Your task to perform on an android device: choose inbox layout in the gmail app Image 0: 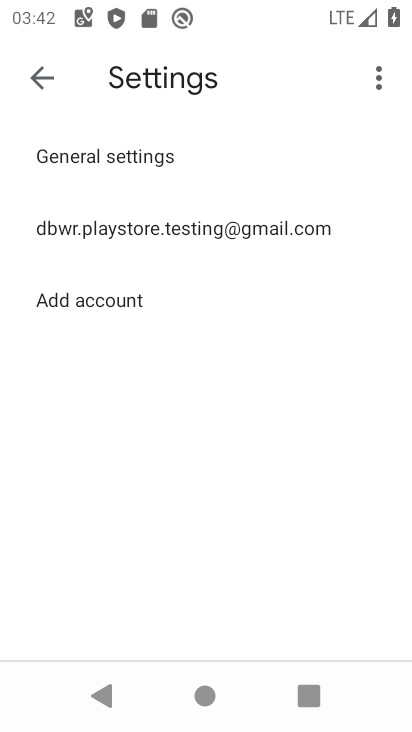
Step 0: press home button
Your task to perform on an android device: choose inbox layout in the gmail app Image 1: 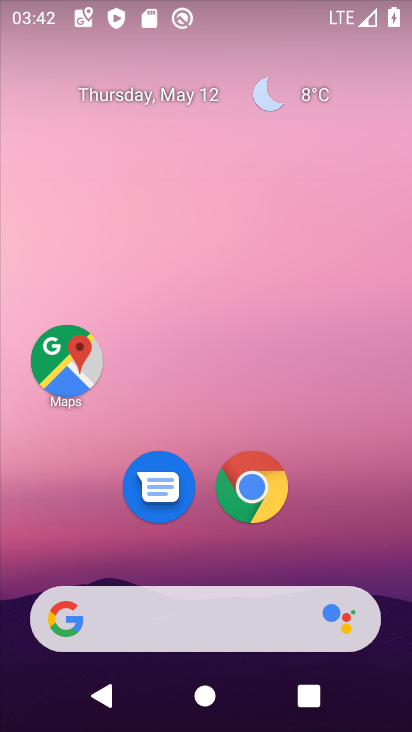
Step 1: drag from (368, 482) to (286, 57)
Your task to perform on an android device: choose inbox layout in the gmail app Image 2: 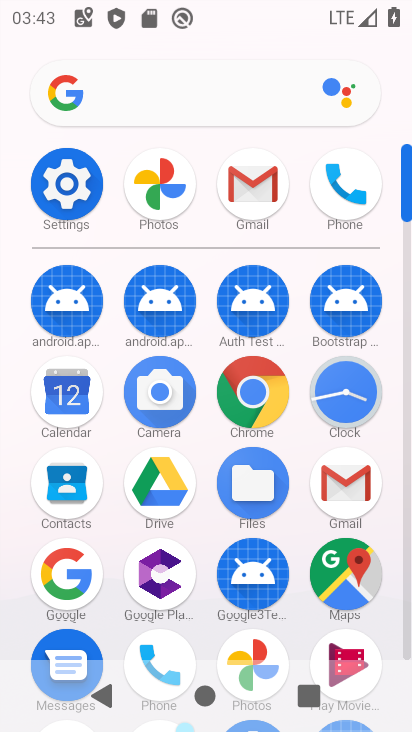
Step 2: click (345, 487)
Your task to perform on an android device: choose inbox layout in the gmail app Image 3: 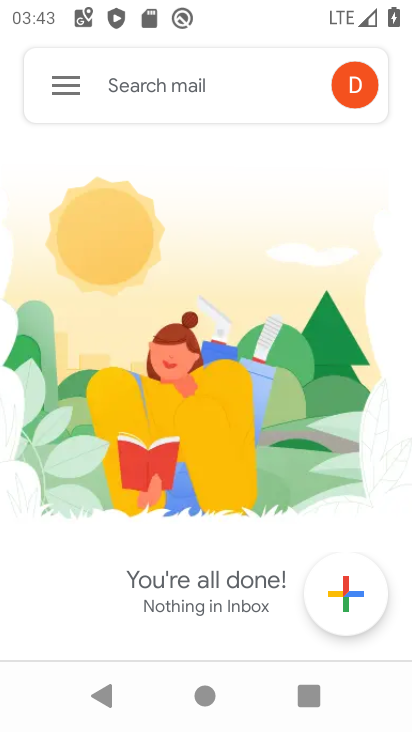
Step 3: click (42, 85)
Your task to perform on an android device: choose inbox layout in the gmail app Image 4: 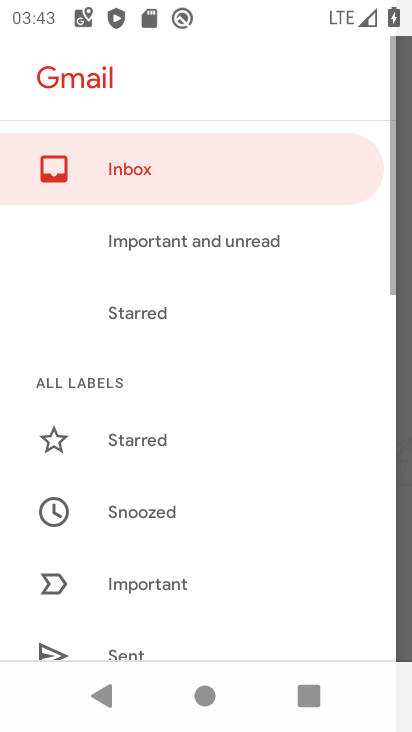
Step 4: drag from (239, 550) to (274, 201)
Your task to perform on an android device: choose inbox layout in the gmail app Image 5: 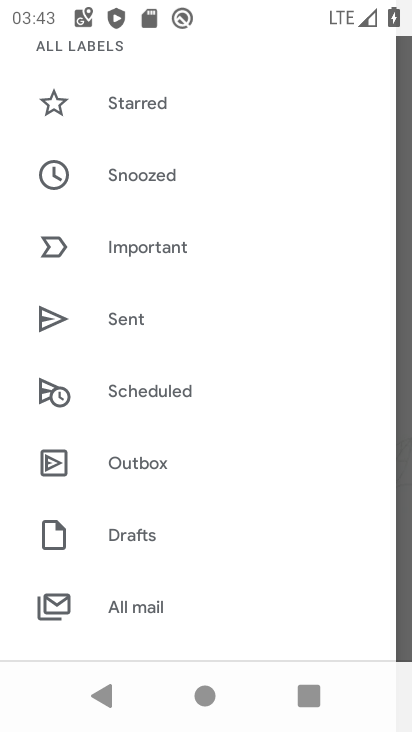
Step 5: drag from (134, 623) to (264, 183)
Your task to perform on an android device: choose inbox layout in the gmail app Image 6: 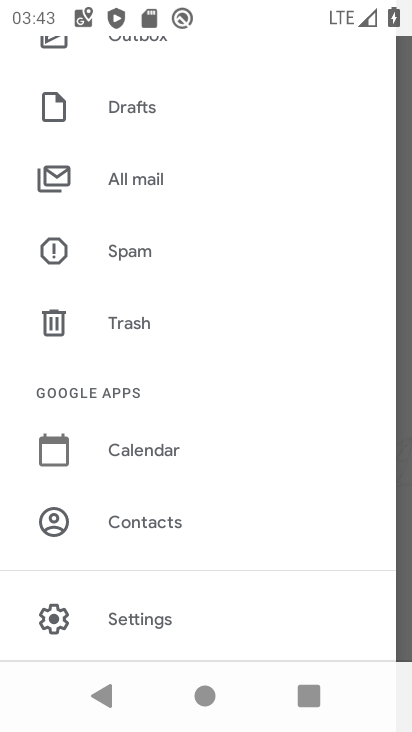
Step 6: click (142, 613)
Your task to perform on an android device: choose inbox layout in the gmail app Image 7: 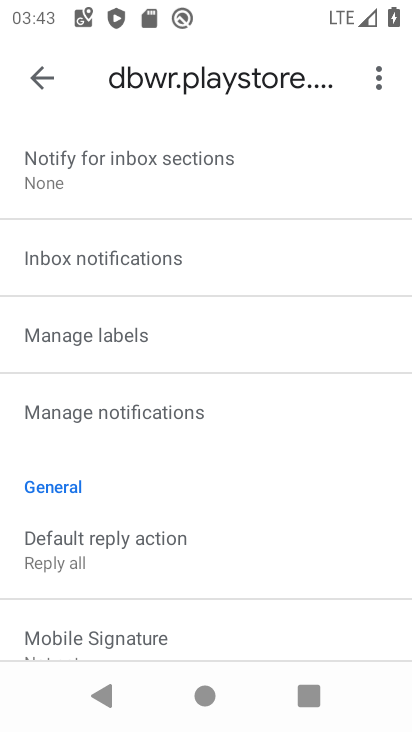
Step 7: drag from (179, 264) to (194, 642)
Your task to perform on an android device: choose inbox layout in the gmail app Image 8: 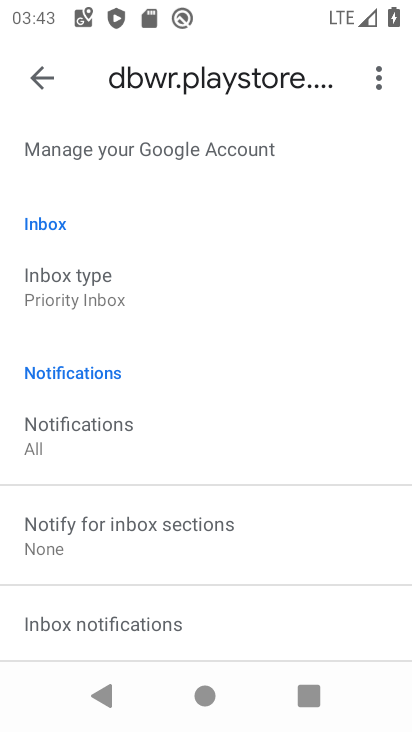
Step 8: click (77, 294)
Your task to perform on an android device: choose inbox layout in the gmail app Image 9: 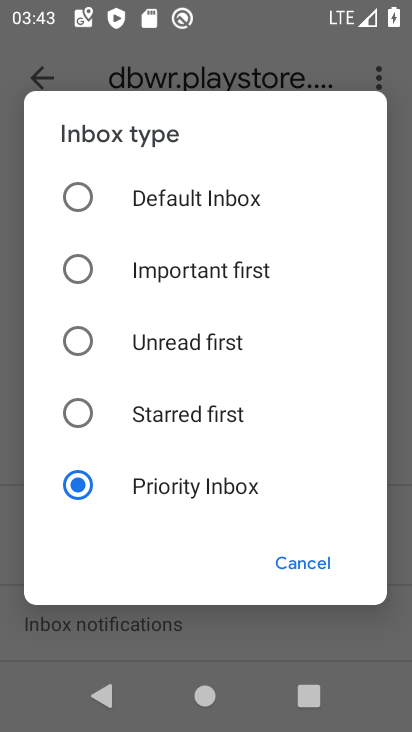
Step 9: task complete